Your task to perform on an android device: Open the Play Movies app and select the watchlist tab. Image 0: 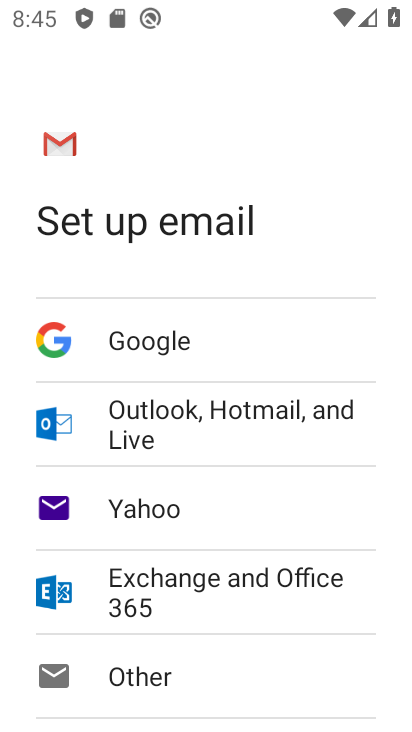
Step 0: press home button
Your task to perform on an android device: Open the Play Movies app and select the watchlist tab. Image 1: 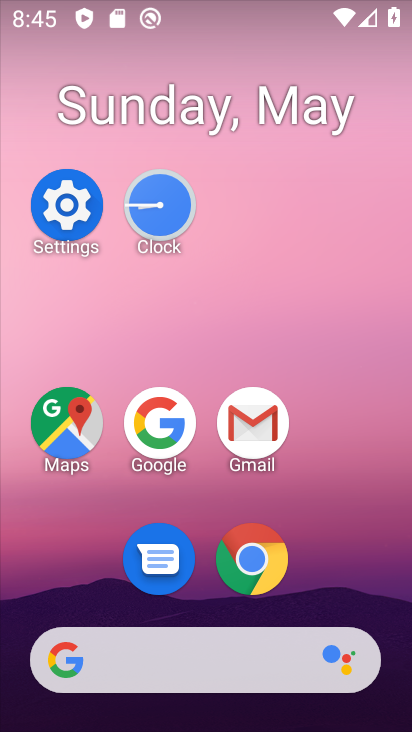
Step 1: drag from (372, 562) to (345, 199)
Your task to perform on an android device: Open the Play Movies app and select the watchlist tab. Image 2: 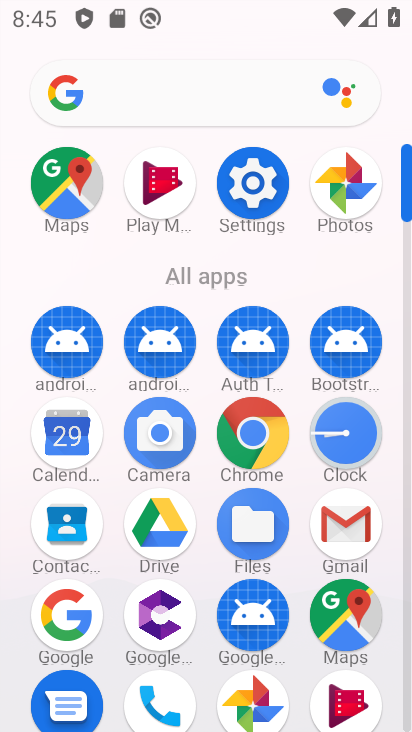
Step 2: drag from (293, 638) to (295, 314)
Your task to perform on an android device: Open the Play Movies app and select the watchlist tab. Image 3: 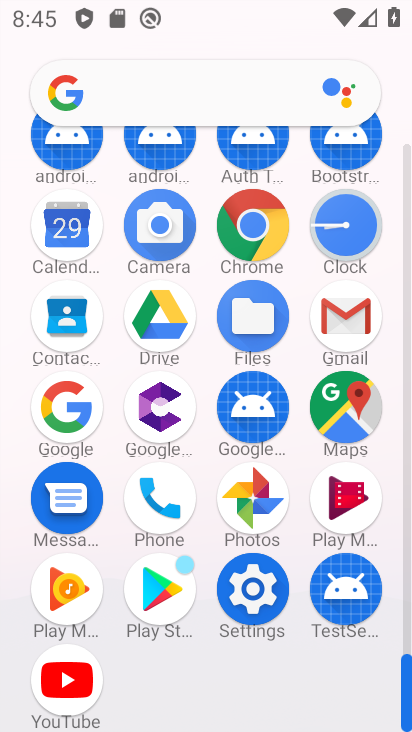
Step 3: click (351, 514)
Your task to perform on an android device: Open the Play Movies app and select the watchlist tab. Image 4: 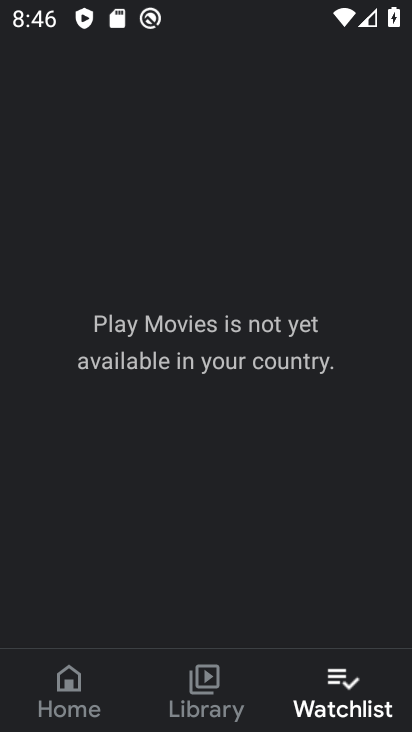
Step 4: click (272, 683)
Your task to perform on an android device: Open the Play Movies app and select the watchlist tab. Image 5: 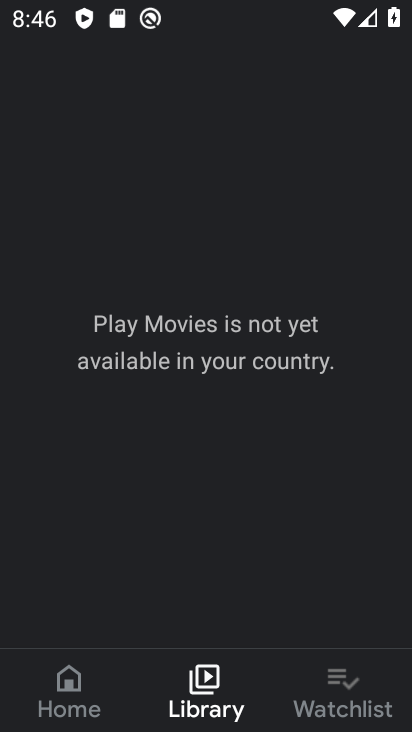
Step 5: click (321, 692)
Your task to perform on an android device: Open the Play Movies app and select the watchlist tab. Image 6: 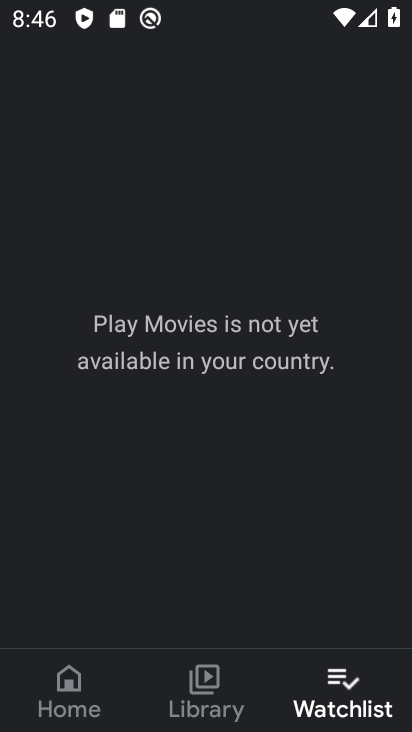
Step 6: task complete